Your task to perform on an android device: check out phone information Image 0: 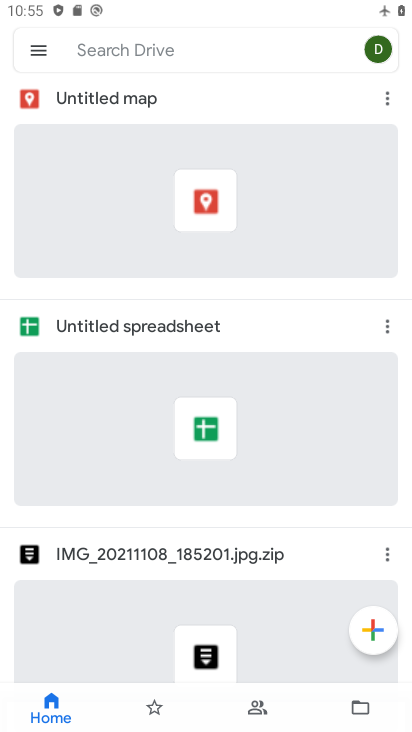
Step 0: press home button
Your task to perform on an android device: check out phone information Image 1: 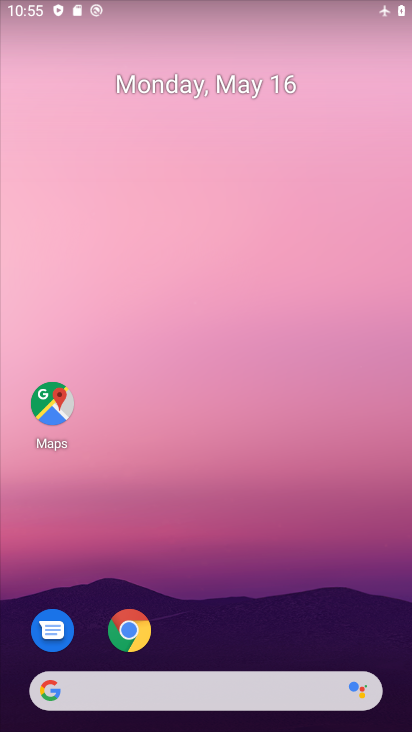
Step 1: drag from (250, 633) to (188, 92)
Your task to perform on an android device: check out phone information Image 2: 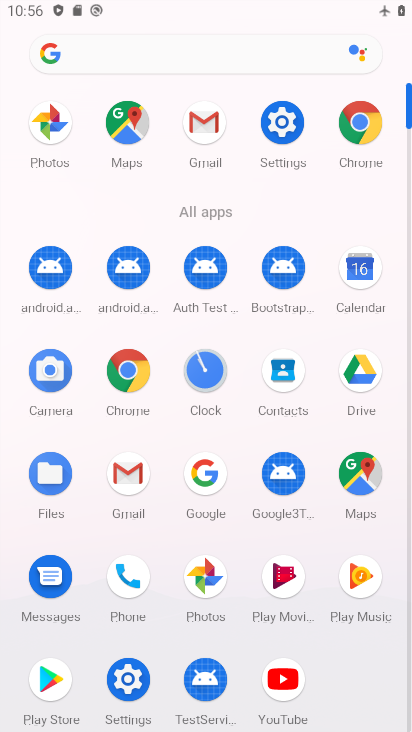
Step 2: click (282, 129)
Your task to perform on an android device: check out phone information Image 3: 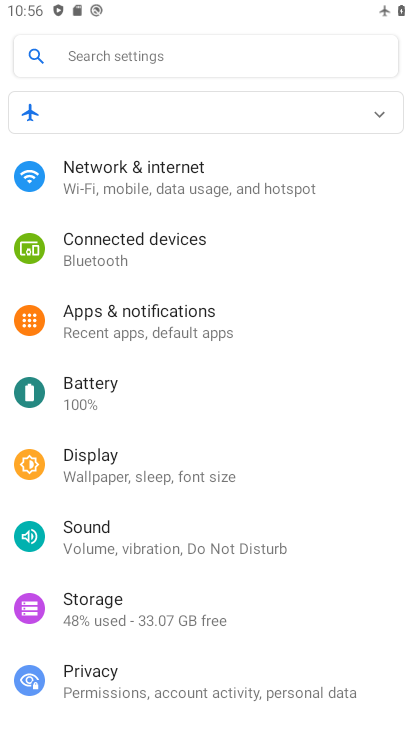
Step 3: drag from (298, 701) to (244, 271)
Your task to perform on an android device: check out phone information Image 4: 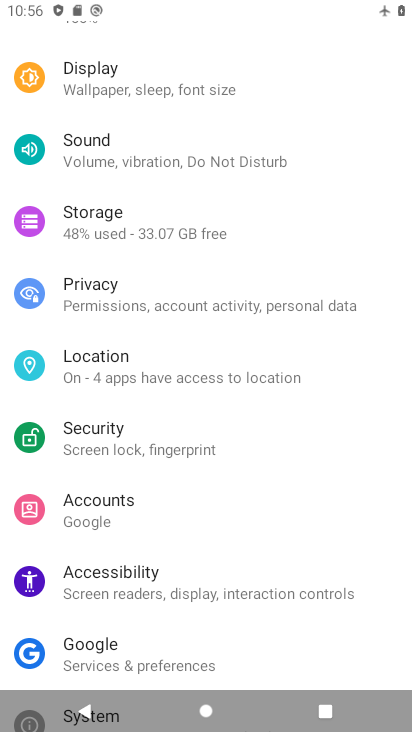
Step 4: drag from (271, 637) to (219, 102)
Your task to perform on an android device: check out phone information Image 5: 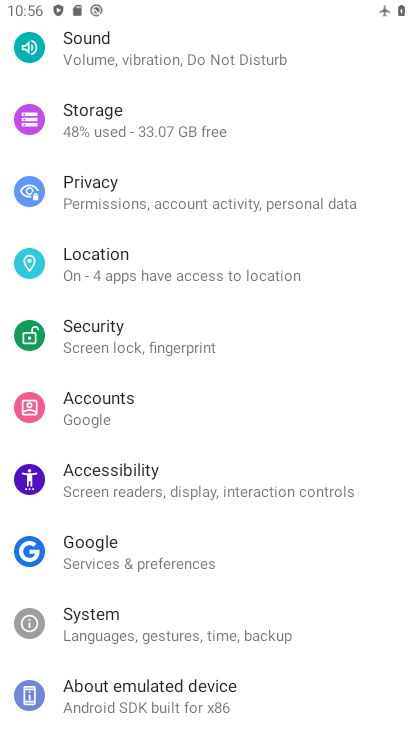
Step 5: click (243, 698)
Your task to perform on an android device: check out phone information Image 6: 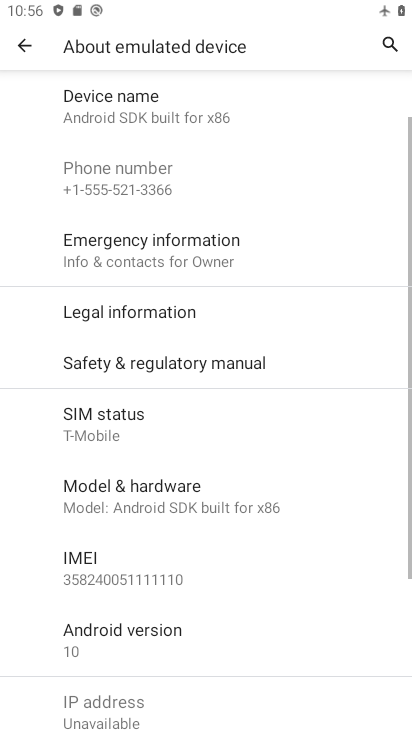
Step 6: task complete